Your task to perform on an android device: Open the Play Movies app and select the watchlist tab. Image 0: 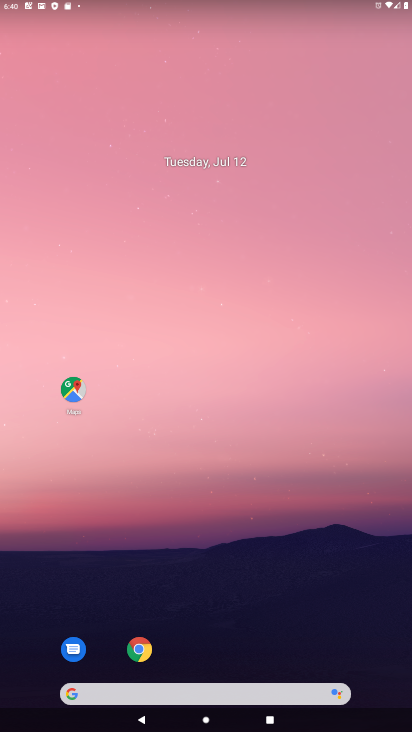
Step 0: drag from (235, 695) to (268, 204)
Your task to perform on an android device: Open the Play Movies app and select the watchlist tab. Image 1: 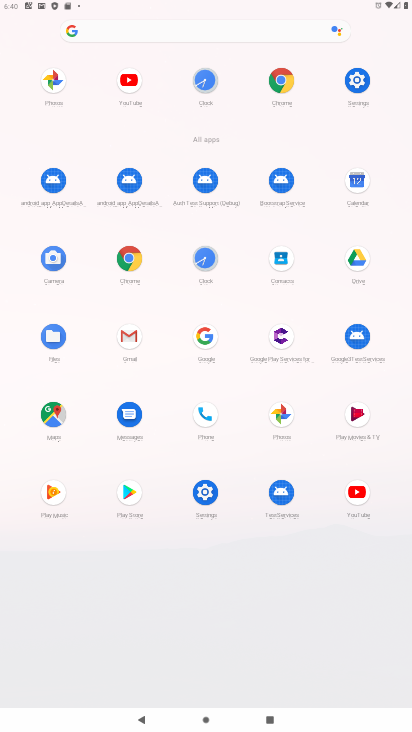
Step 1: click (358, 418)
Your task to perform on an android device: Open the Play Movies app and select the watchlist tab. Image 2: 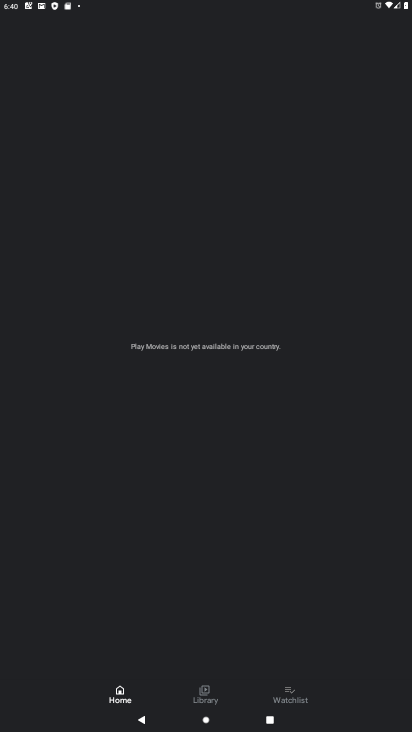
Step 2: click (293, 699)
Your task to perform on an android device: Open the Play Movies app and select the watchlist tab. Image 3: 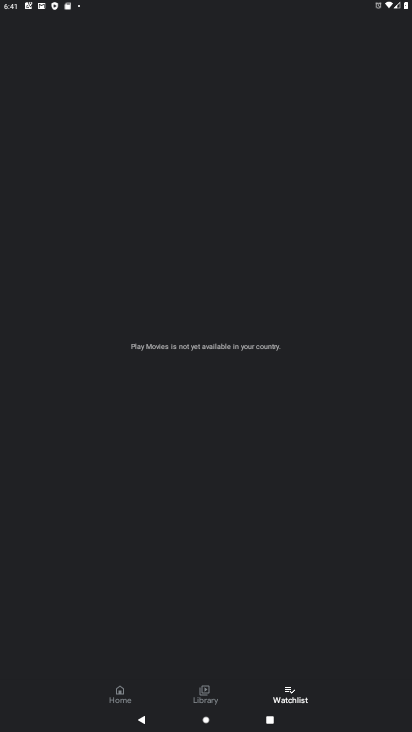
Step 3: task complete